Your task to perform on an android device: open chrome and create a bookmark for the current page Image 0: 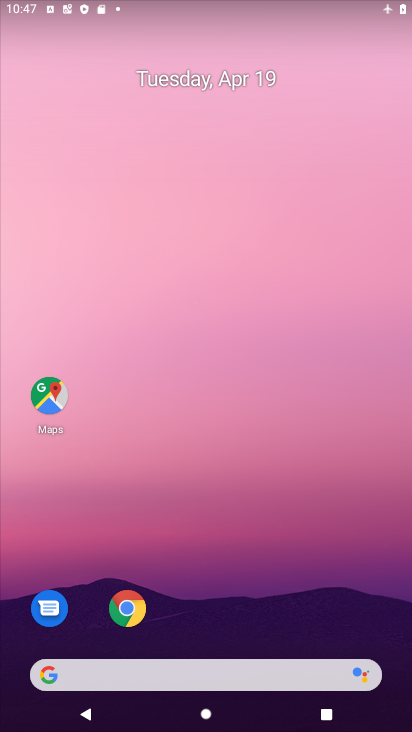
Step 0: click (126, 609)
Your task to perform on an android device: open chrome and create a bookmark for the current page Image 1: 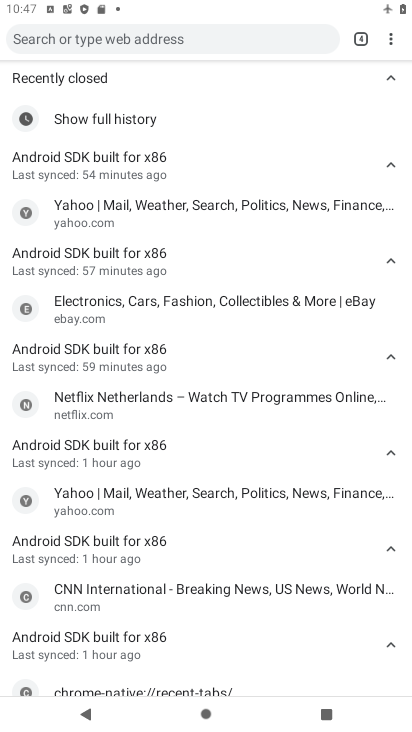
Step 1: click (73, 41)
Your task to perform on an android device: open chrome and create a bookmark for the current page Image 2: 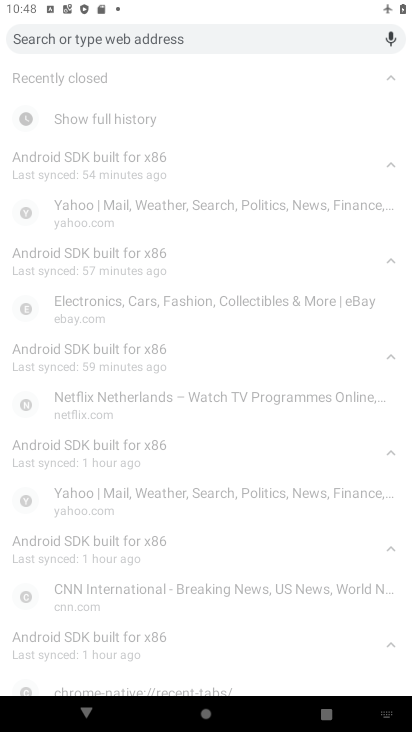
Step 2: type "jack and jones"
Your task to perform on an android device: open chrome and create a bookmark for the current page Image 3: 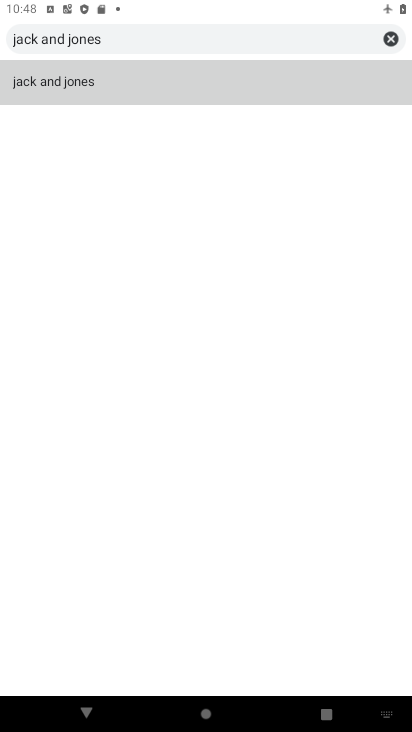
Step 3: click (106, 77)
Your task to perform on an android device: open chrome and create a bookmark for the current page Image 4: 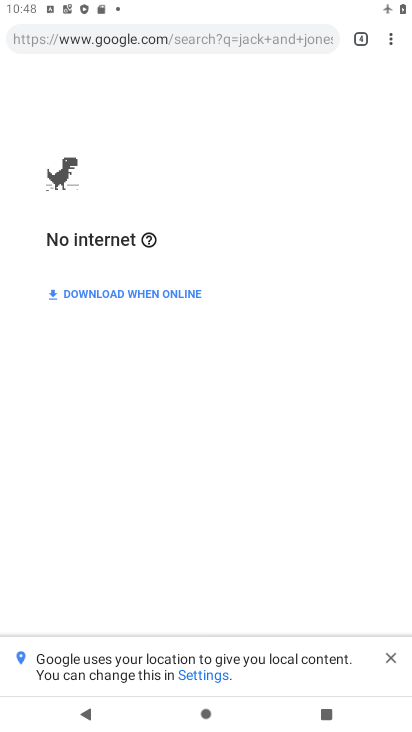
Step 4: task complete